Your task to perform on an android device: Open Youtube and go to the subscriptions tab Image 0: 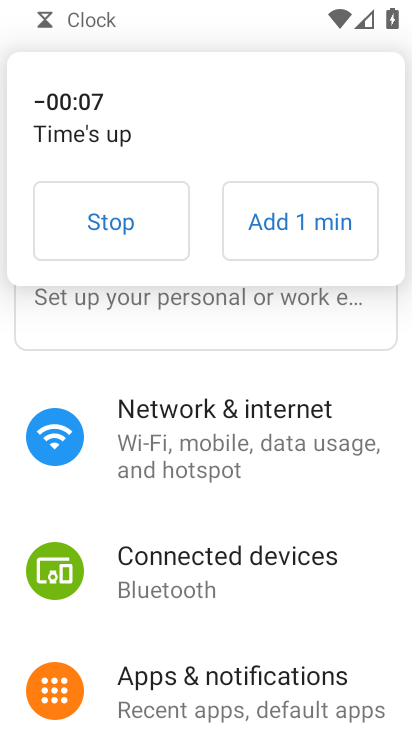
Step 0: press home button
Your task to perform on an android device: Open Youtube and go to the subscriptions tab Image 1: 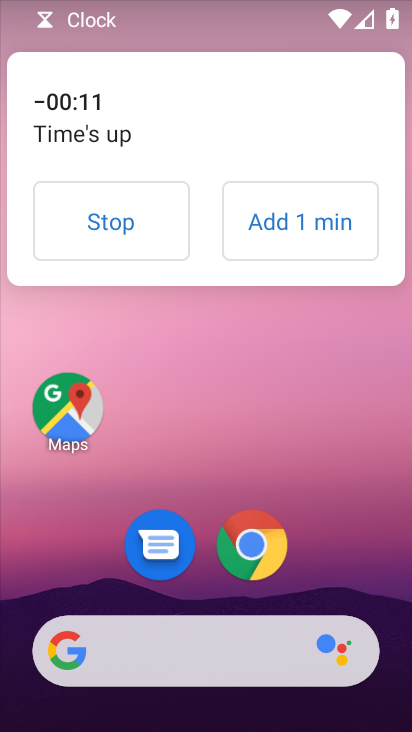
Step 1: drag from (330, 561) to (327, 76)
Your task to perform on an android device: Open Youtube and go to the subscriptions tab Image 2: 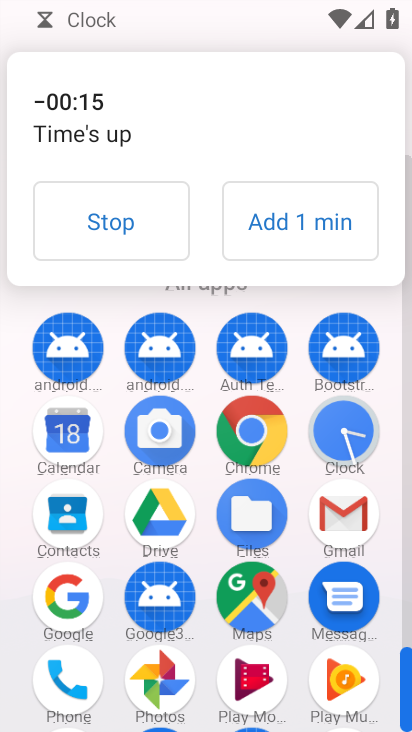
Step 2: drag from (196, 625) to (213, 344)
Your task to perform on an android device: Open Youtube and go to the subscriptions tab Image 3: 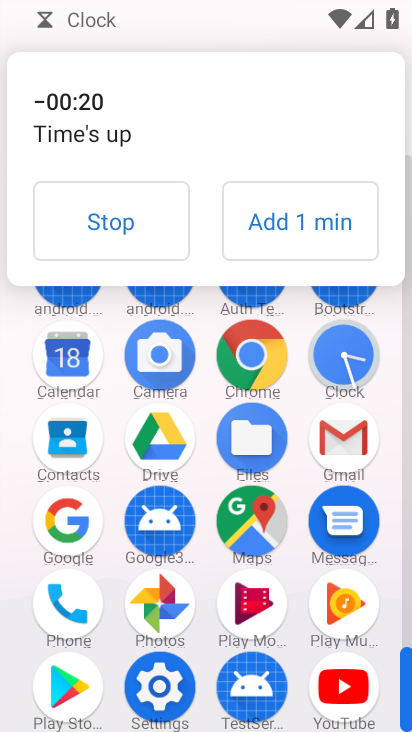
Step 3: click (357, 690)
Your task to perform on an android device: Open Youtube and go to the subscriptions tab Image 4: 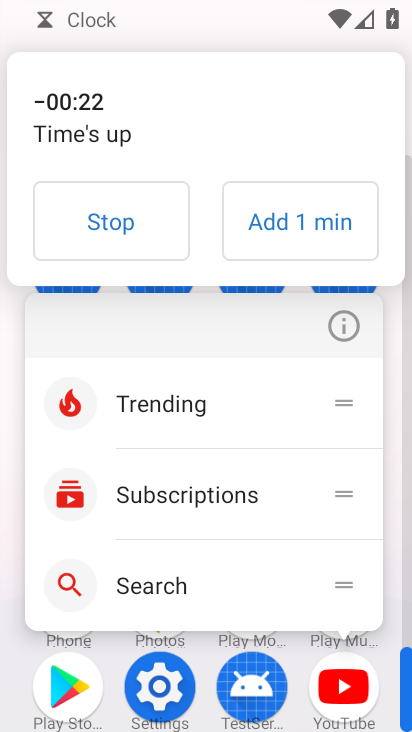
Step 4: click (357, 690)
Your task to perform on an android device: Open Youtube and go to the subscriptions tab Image 5: 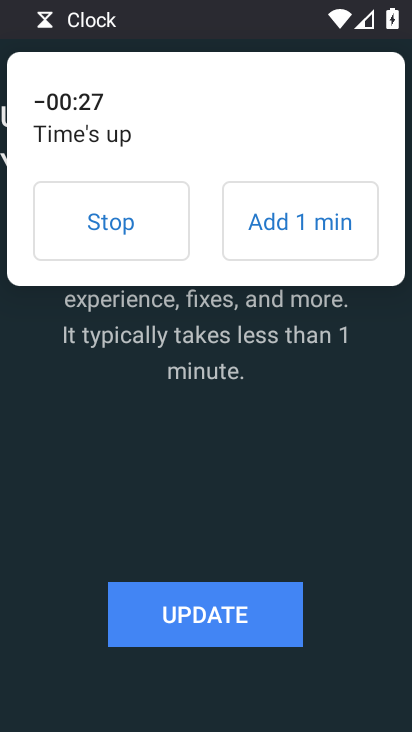
Step 5: click (265, 616)
Your task to perform on an android device: Open Youtube and go to the subscriptions tab Image 6: 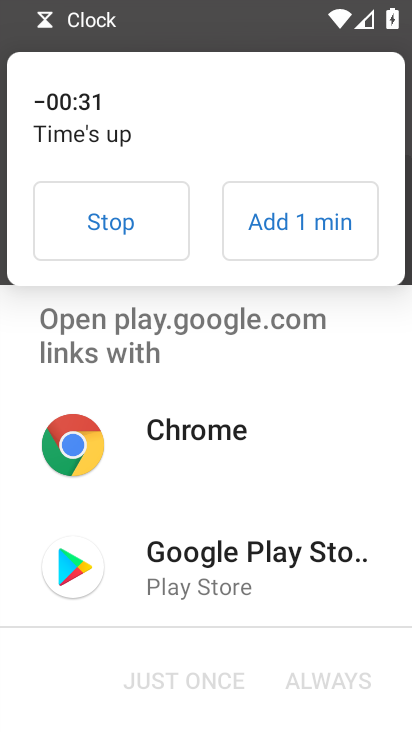
Step 6: click (242, 579)
Your task to perform on an android device: Open Youtube and go to the subscriptions tab Image 7: 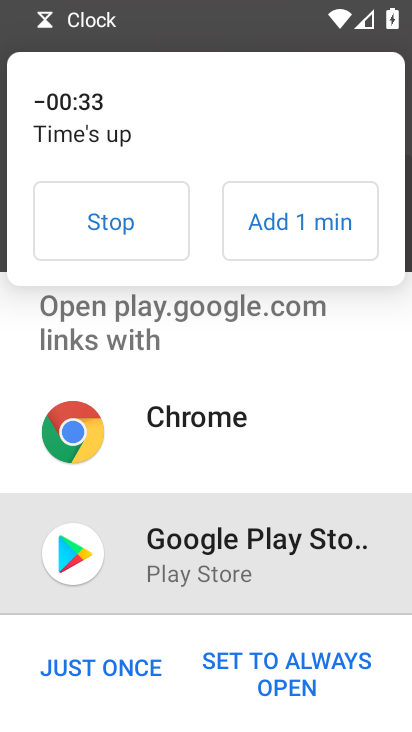
Step 7: click (138, 673)
Your task to perform on an android device: Open Youtube and go to the subscriptions tab Image 8: 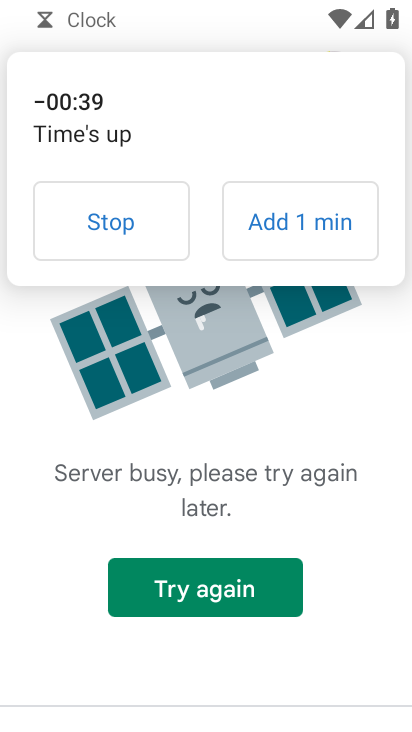
Step 8: click (138, 224)
Your task to perform on an android device: Open Youtube and go to the subscriptions tab Image 9: 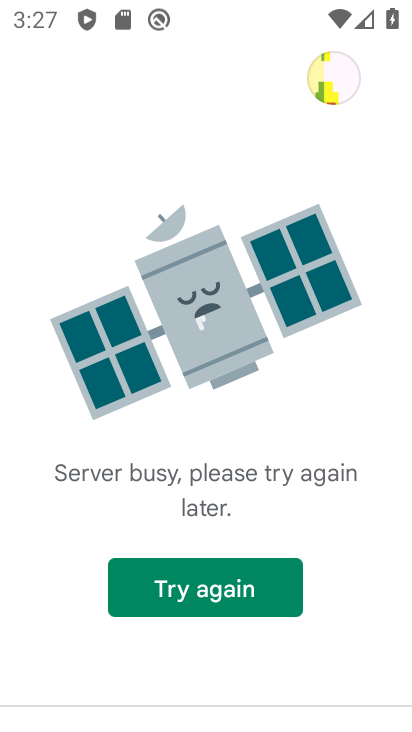
Step 9: task complete